Your task to perform on an android device: turn on airplane mode Image 0: 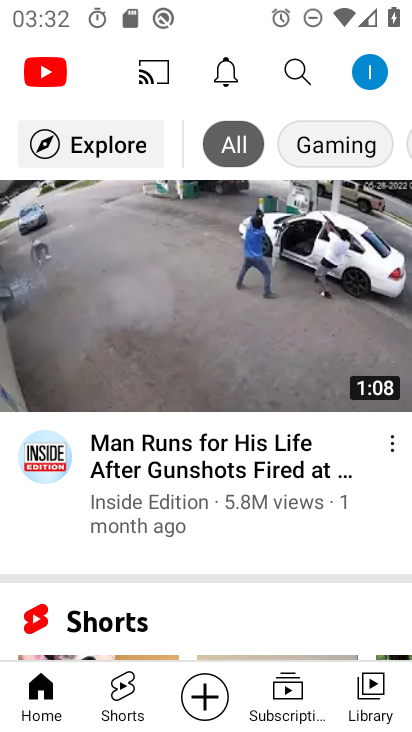
Step 0: press home button
Your task to perform on an android device: turn on airplane mode Image 1: 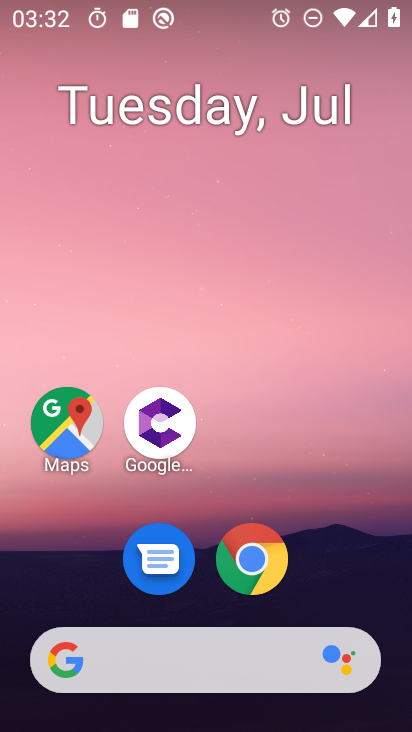
Step 1: drag from (359, 584) to (377, 227)
Your task to perform on an android device: turn on airplane mode Image 2: 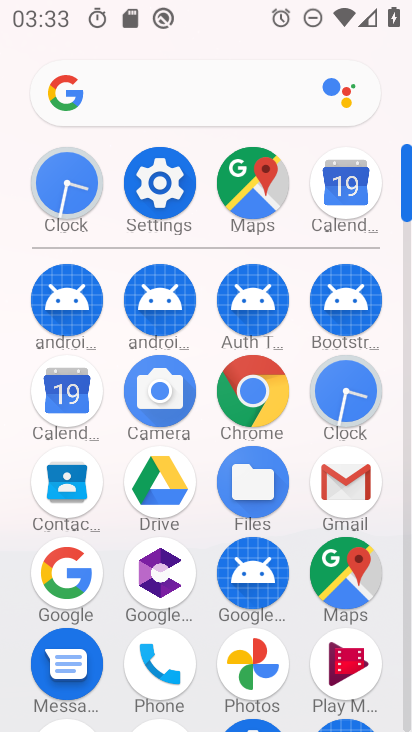
Step 2: click (173, 197)
Your task to perform on an android device: turn on airplane mode Image 3: 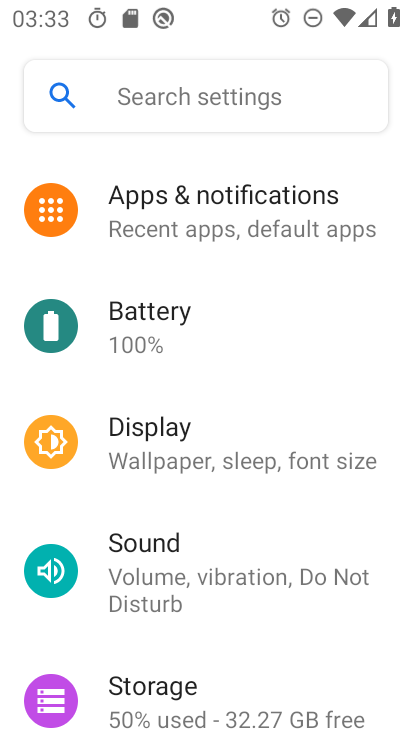
Step 3: drag from (314, 301) to (309, 402)
Your task to perform on an android device: turn on airplane mode Image 4: 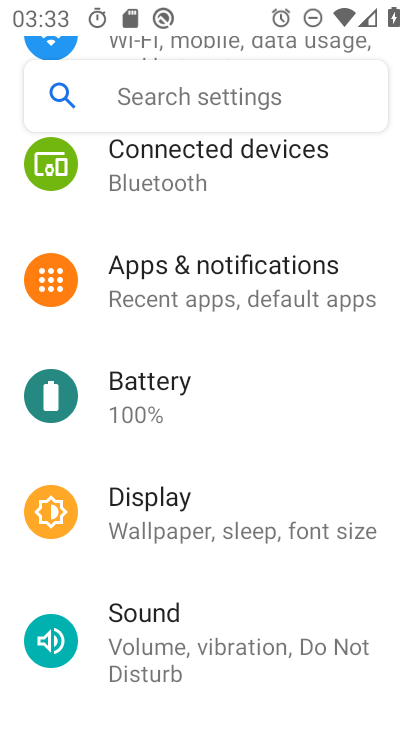
Step 4: drag from (350, 237) to (356, 410)
Your task to perform on an android device: turn on airplane mode Image 5: 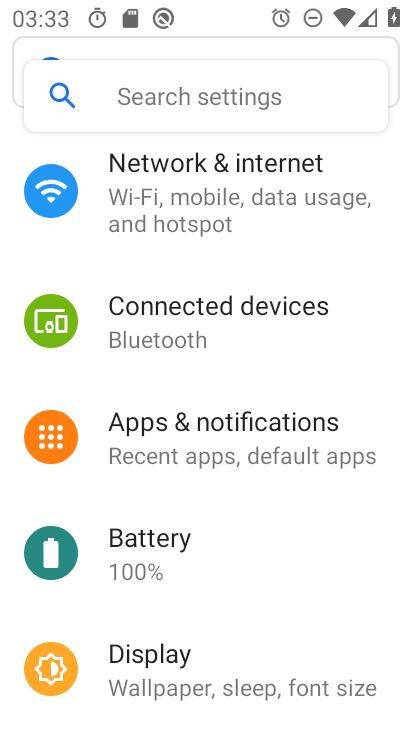
Step 5: drag from (363, 296) to (363, 475)
Your task to perform on an android device: turn on airplane mode Image 6: 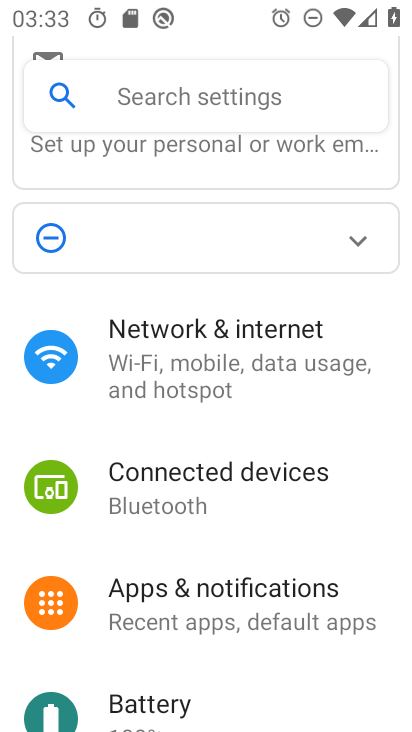
Step 6: drag from (358, 437) to (362, 537)
Your task to perform on an android device: turn on airplane mode Image 7: 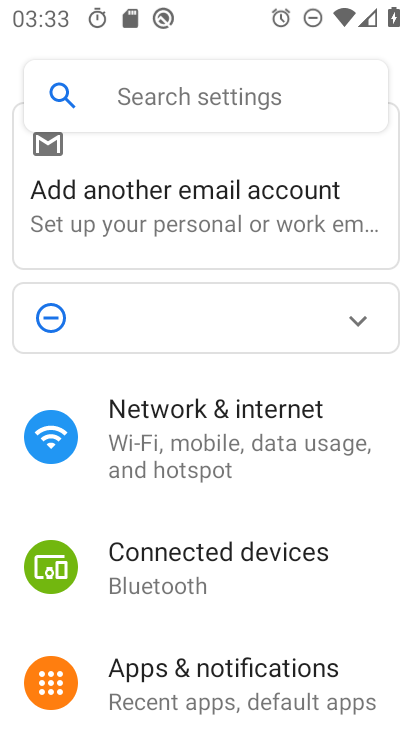
Step 7: drag from (367, 602) to (365, 474)
Your task to perform on an android device: turn on airplane mode Image 8: 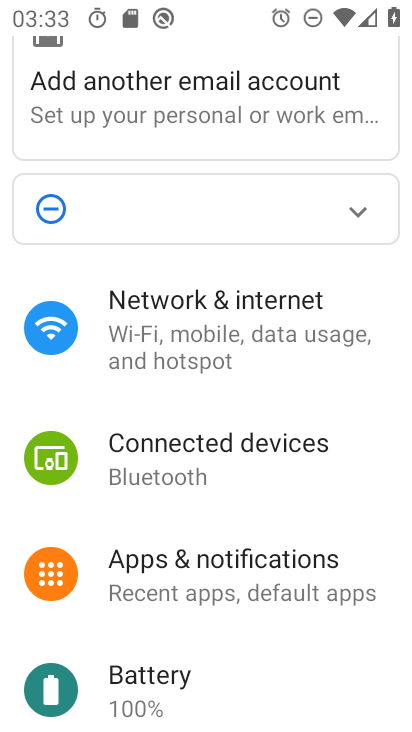
Step 8: click (272, 350)
Your task to perform on an android device: turn on airplane mode Image 9: 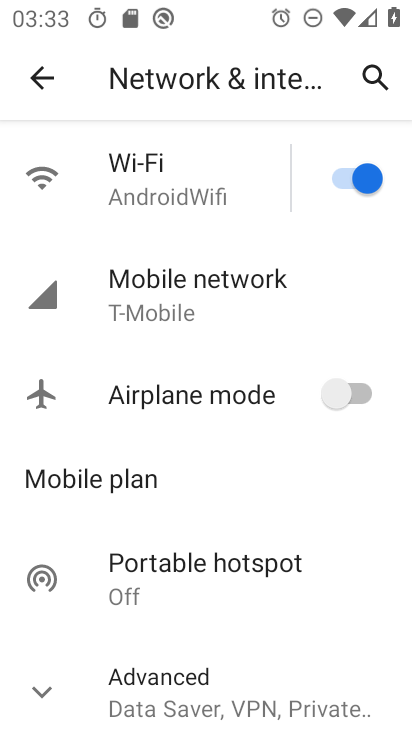
Step 9: click (341, 398)
Your task to perform on an android device: turn on airplane mode Image 10: 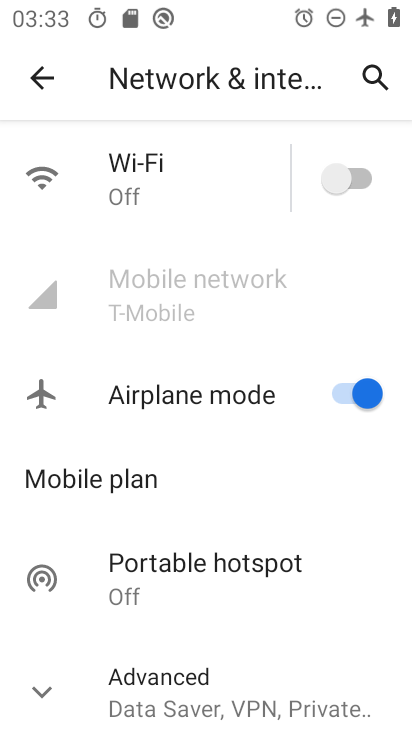
Step 10: task complete